Your task to perform on an android device: Open network settings Image 0: 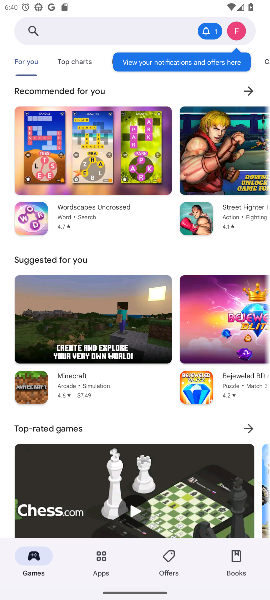
Step 0: press home button
Your task to perform on an android device: Open network settings Image 1: 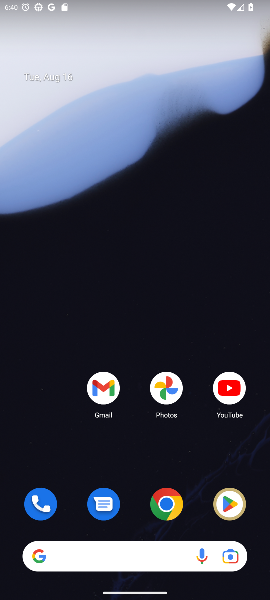
Step 1: drag from (21, 579) to (218, 166)
Your task to perform on an android device: Open network settings Image 2: 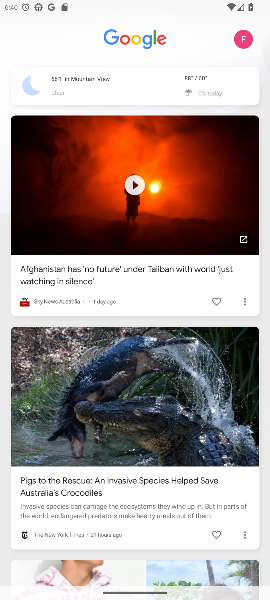
Step 2: press home button
Your task to perform on an android device: Open network settings Image 3: 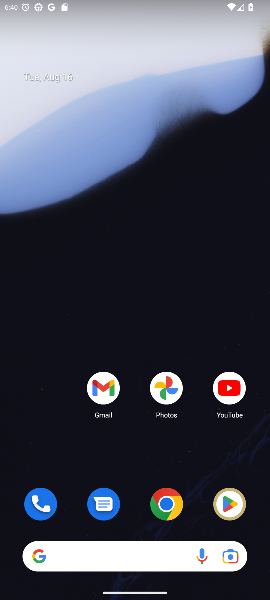
Step 3: drag from (17, 570) to (117, 173)
Your task to perform on an android device: Open network settings Image 4: 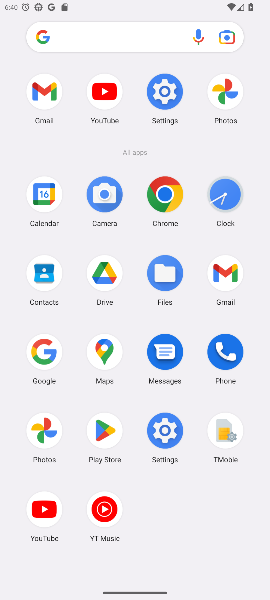
Step 4: click (165, 432)
Your task to perform on an android device: Open network settings Image 5: 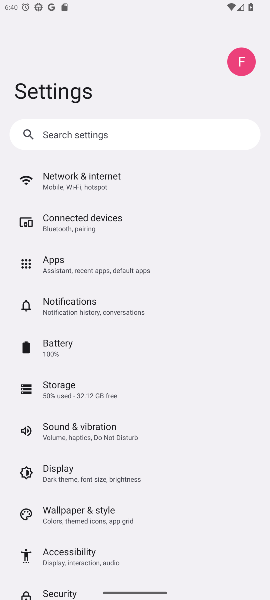
Step 5: click (92, 303)
Your task to perform on an android device: Open network settings Image 6: 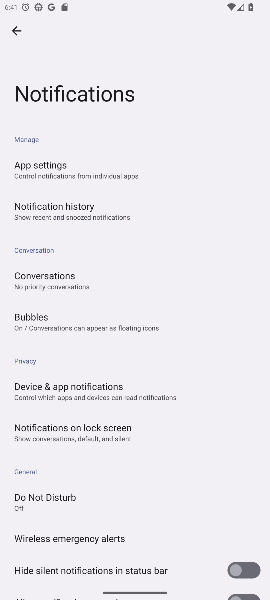
Step 6: press back button
Your task to perform on an android device: Open network settings Image 7: 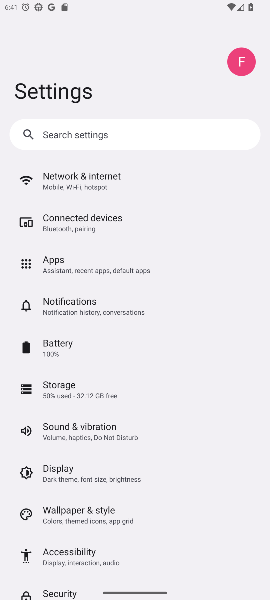
Step 7: click (99, 187)
Your task to perform on an android device: Open network settings Image 8: 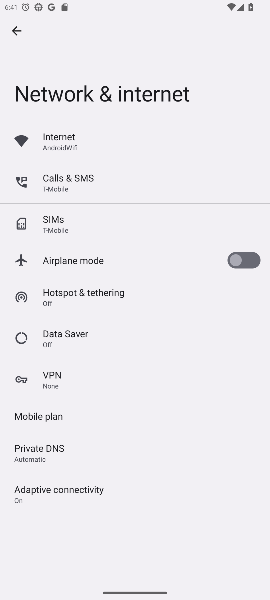
Step 8: task complete